Your task to perform on an android device: turn on notifications settings in the gmail app Image 0: 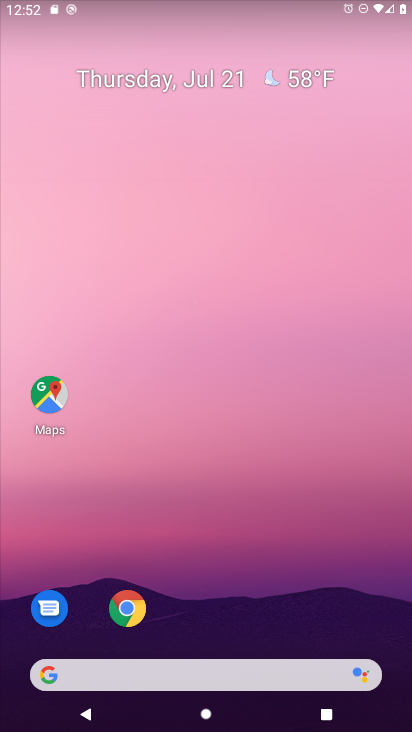
Step 0: drag from (215, 625) to (257, 44)
Your task to perform on an android device: turn on notifications settings in the gmail app Image 1: 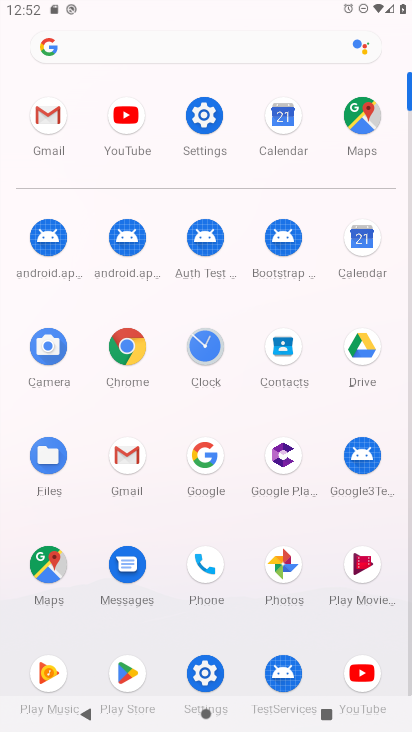
Step 1: click (61, 116)
Your task to perform on an android device: turn on notifications settings in the gmail app Image 2: 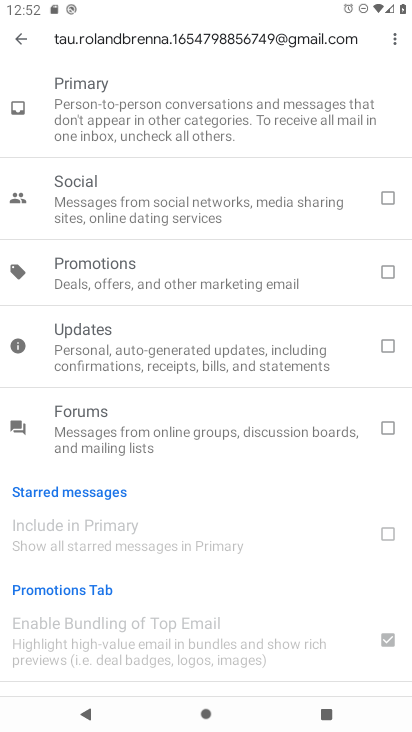
Step 2: click (23, 39)
Your task to perform on an android device: turn on notifications settings in the gmail app Image 3: 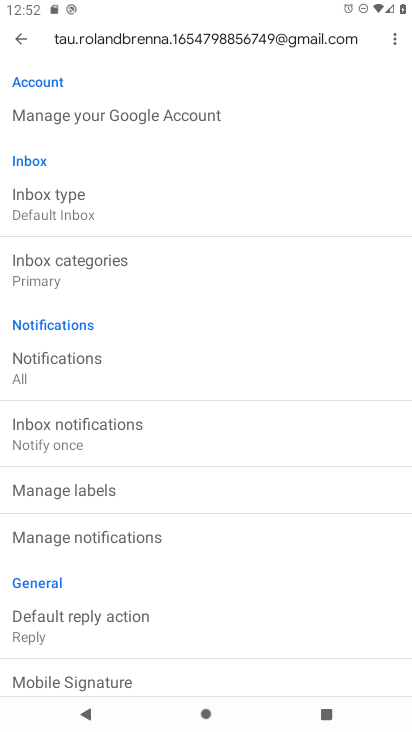
Step 3: click (94, 540)
Your task to perform on an android device: turn on notifications settings in the gmail app Image 4: 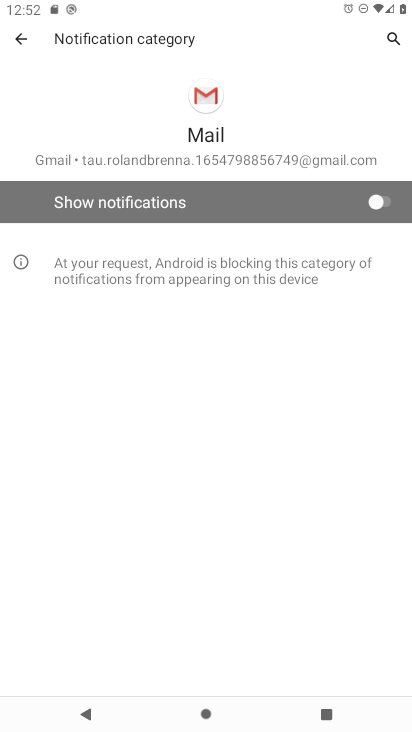
Step 4: click (376, 203)
Your task to perform on an android device: turn on notifications settings in the gmail app Image 5: 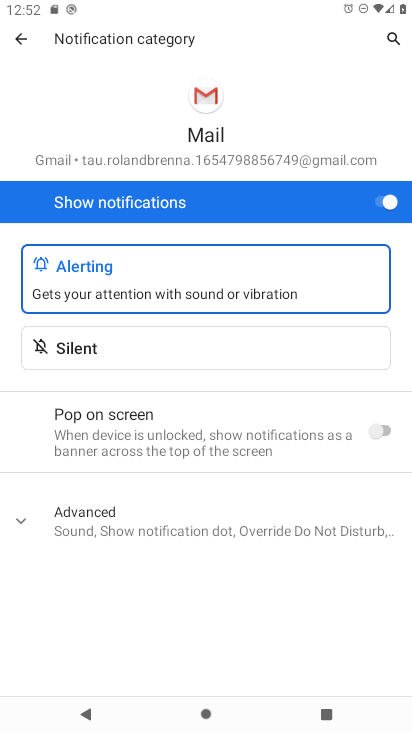
Step 5: task complete